Your task to perform on an android device: turn on the 24-hour format for clock Image 0: 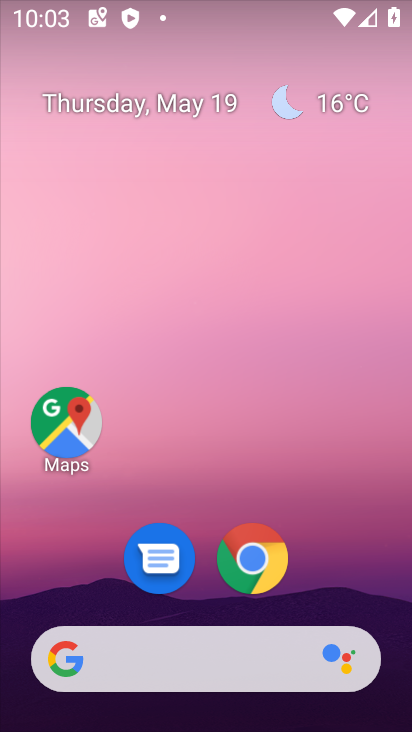
Step 0: drag from (226, 724) to (205, 1)
Your task to perform on an android device: turn on the 24-hour format for clock Image 1: 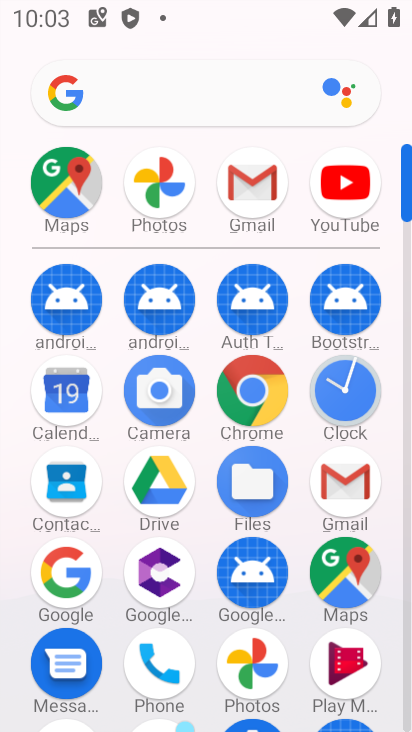
Step 1: click (355, 392)
Your task to perform on an android device: turn on the 24-hour format for clock Image 2: 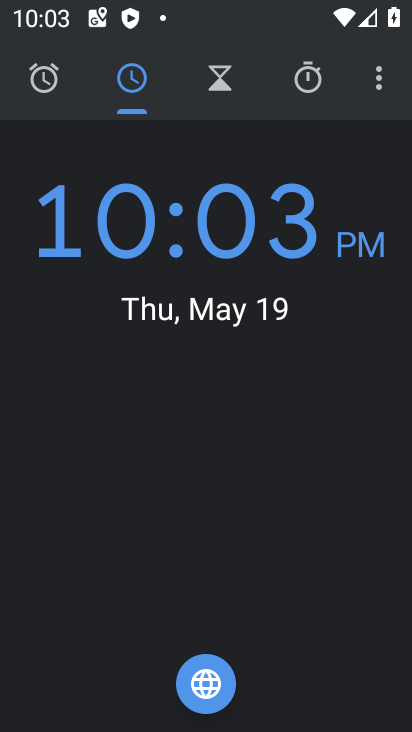
Step 2: click (377, 83)
Your task to perform on an android device: turn on the 24-hour format for clock Image 3: 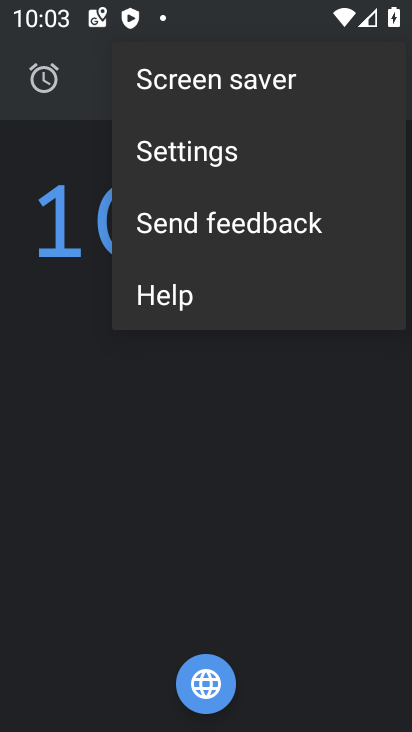
Step 3: click (181, 155)
Your task to perform on an android device: turn on the 24-hour format for clock Image 4: 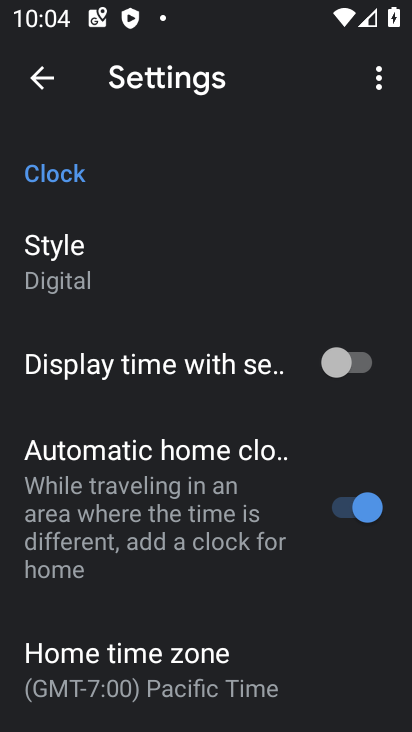
Step 4: drag from (172, 637) to (161, 265)
Your task to perform on an android device: turn on the 24-hour format for clock Image 5: 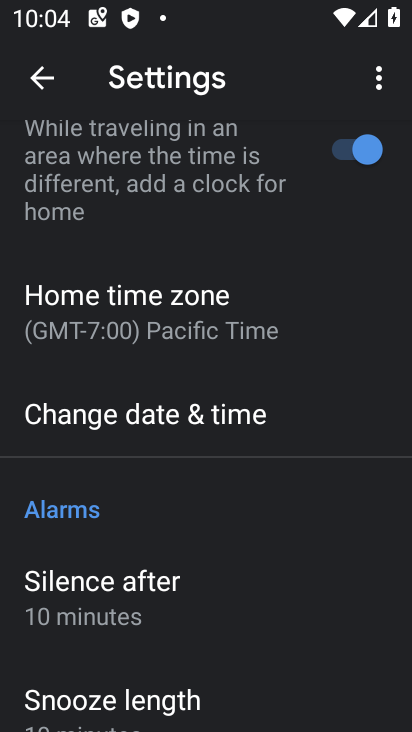
Step 5: click (144, 404)
Your task to perform on an android device: turn on the 24-hour format for clock Image 6: 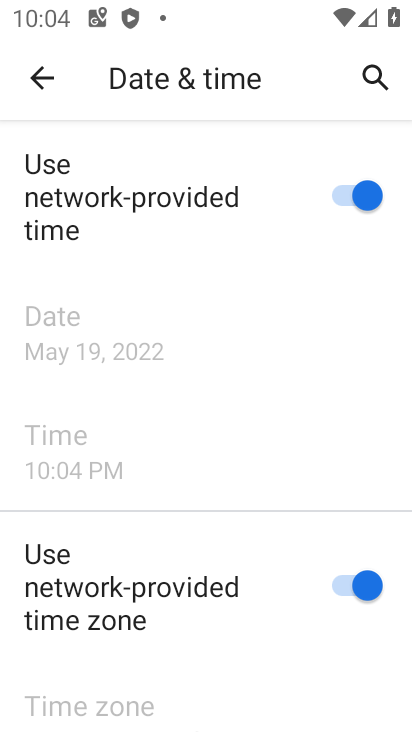
Step 6: drag from (205, 678) to (196, 224)
Your task to perform on an android device: turn on the 24-hour format for clock Image 7: 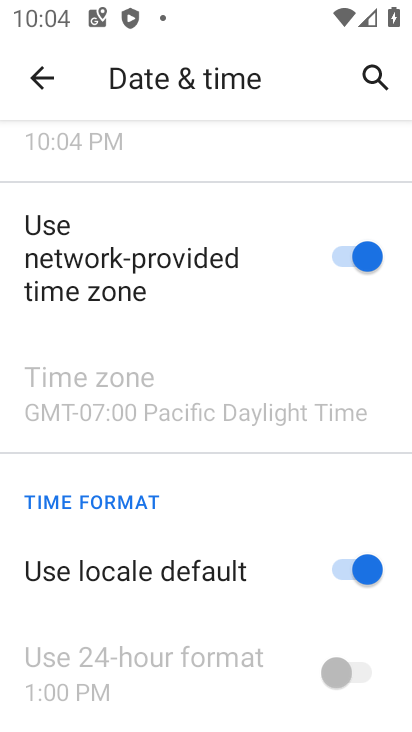
Step 7: click (345, 575)
Your task to perform on an android device: turn on the 24-hour format for clock Image 8: 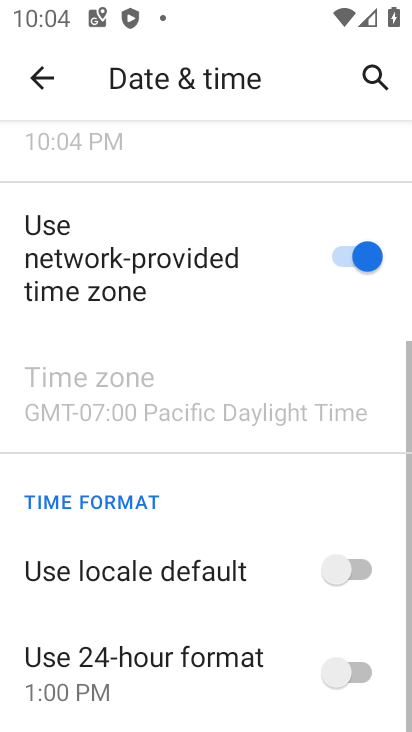
Step 8: click (367, 671)
Your task to perform on an android device: turn on the 24-hour format for clock Image 9: 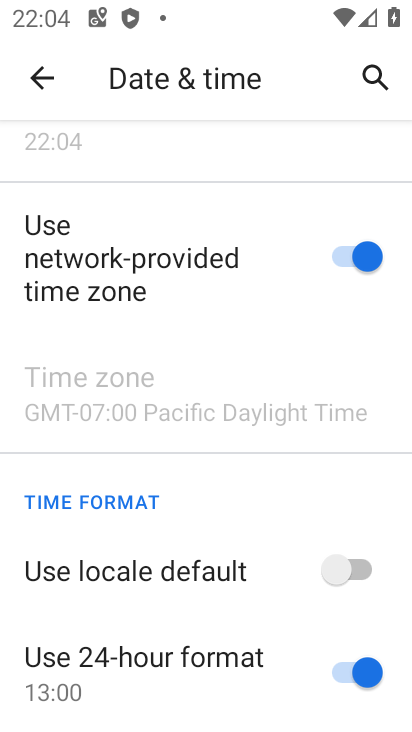
Step 9: task complete